Your task to perform on an android device: Go to internet settings Image 0: 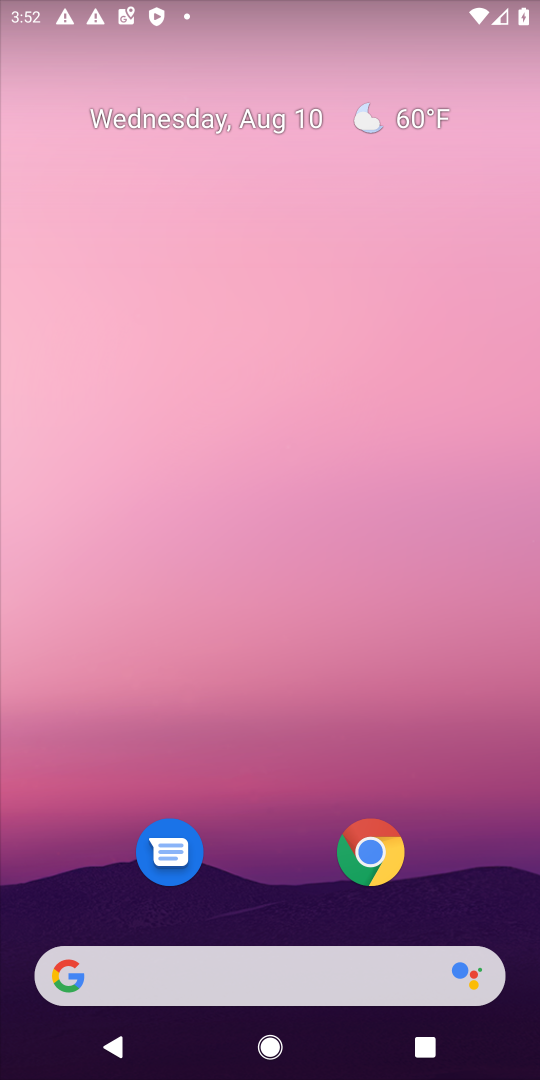
Step 0: drag from (289, 647) to (322, 154)
Your task to perform on an android device: Go to internet settings Image 1: 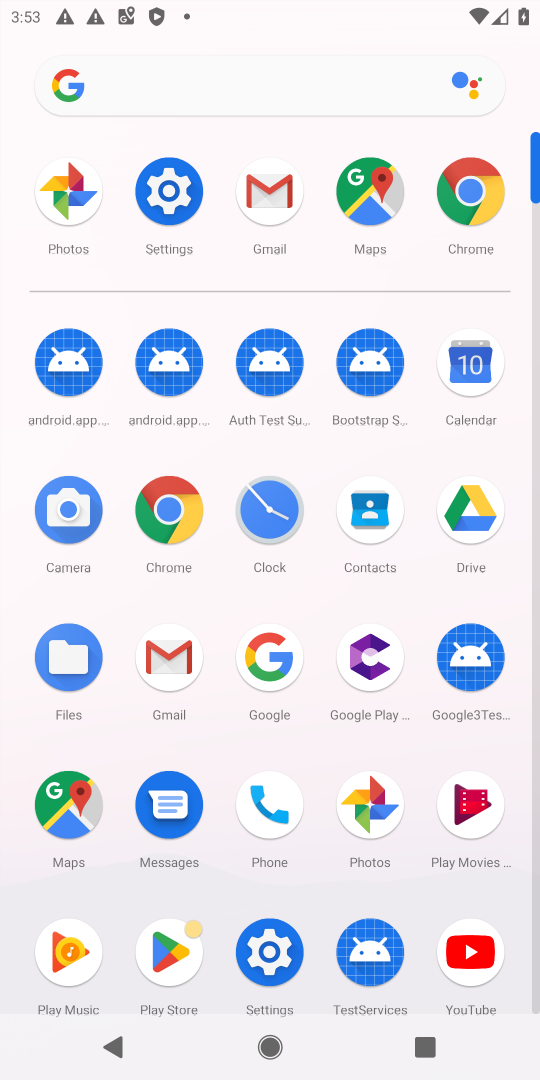
Step 1: click (270, 956)
Your task to perform on an android device: Go to internet settings Image 2: 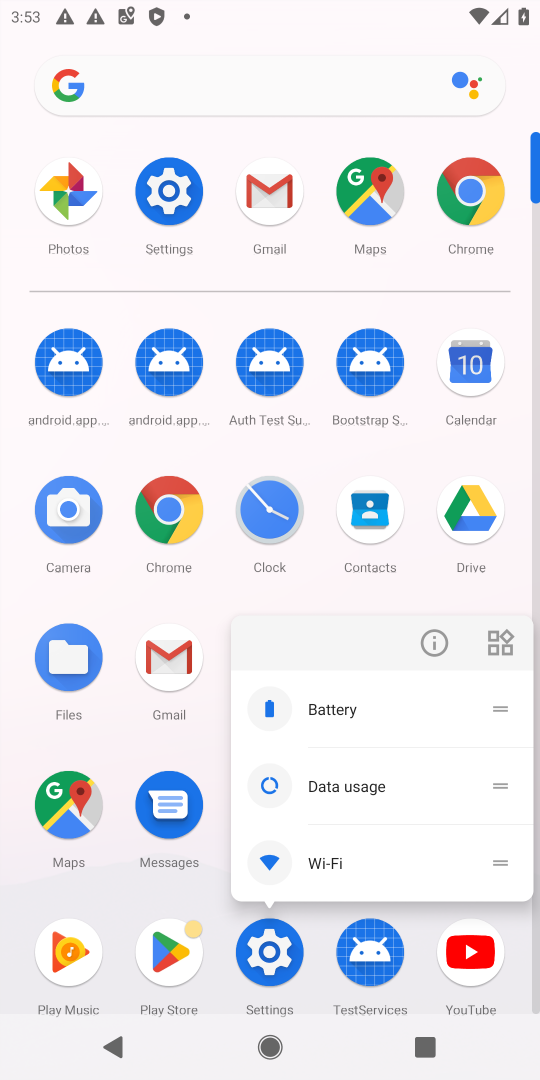
Step 2: click (270, 956)
Your task to perform on an android device: Go to internet settings Image 3: 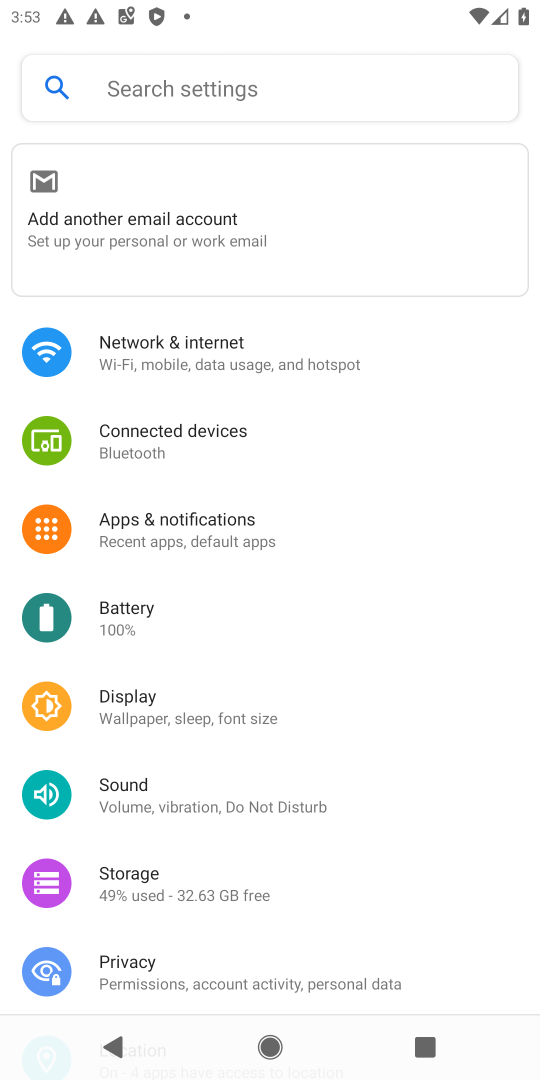
Step 3: click (230, 357)
Your task to perform on an android device: Go to internet settings Image 4: 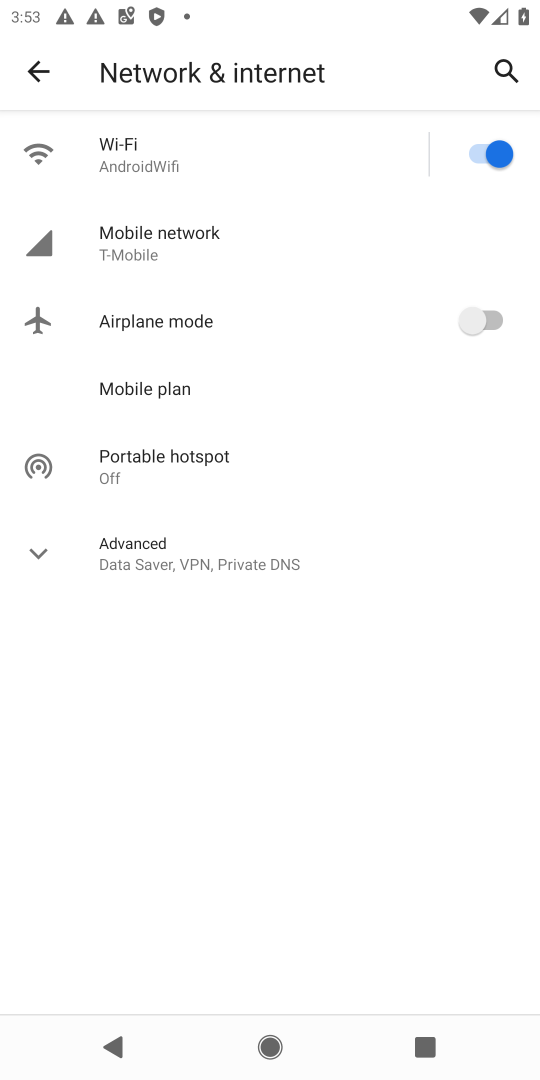
Step 4: click (136, 561)
Your task to perform on an android device: Go to internet settings Image 5: 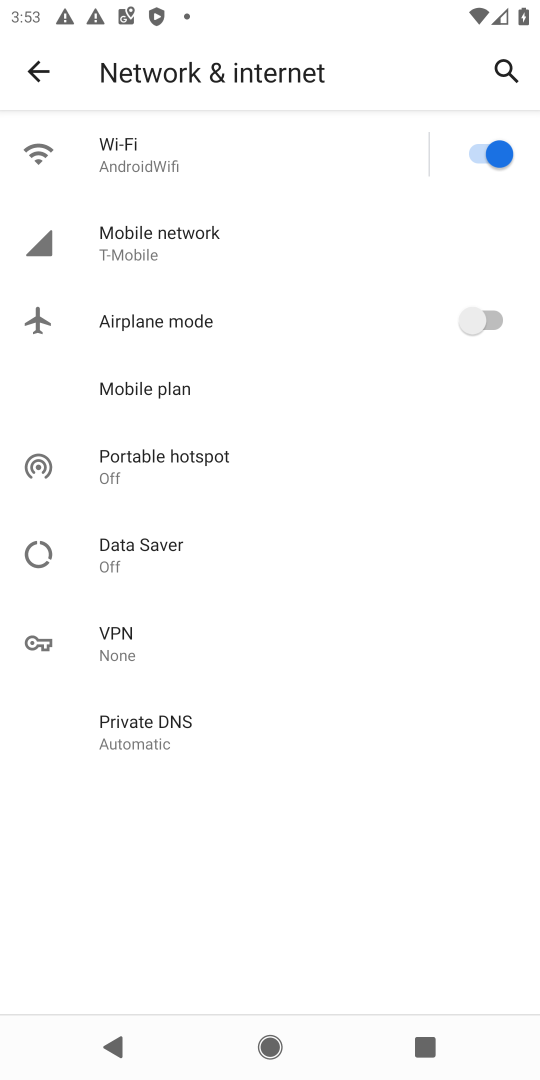
Step 5: task complete